Your task to perform on an android device: Add razer naga to the cart on amazon.com, then select checkout. Image 0: 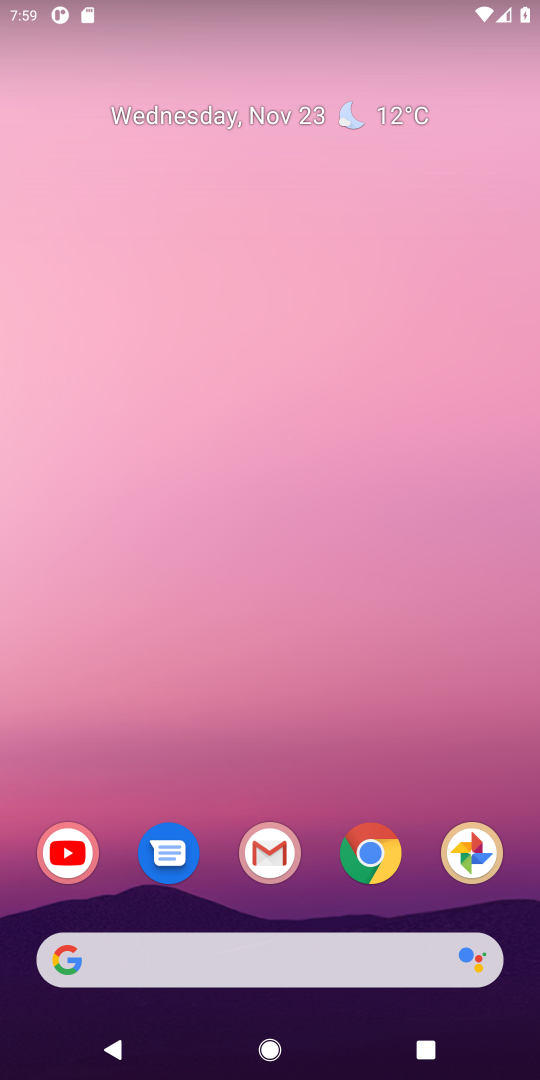
Step 0: click (363, 872)
Your task to perform on an android device: Add razer naga to the cart on amazon.com, then select checkout. Image 1: 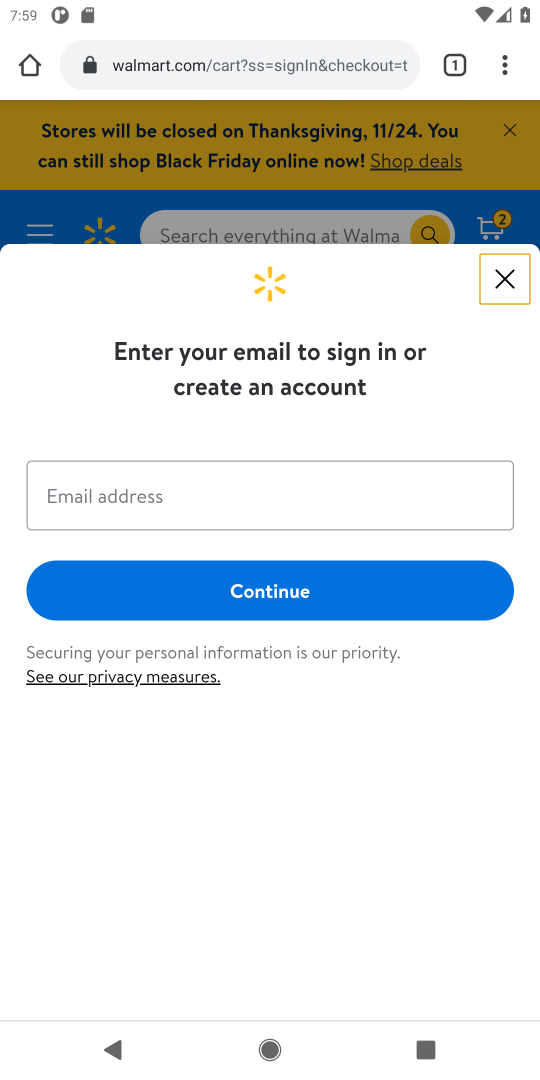
Step 1: click (205, 71)
Your task to perform on an android device: Add razer naga to the cart on amazon.com, then select checkout. Image 2: 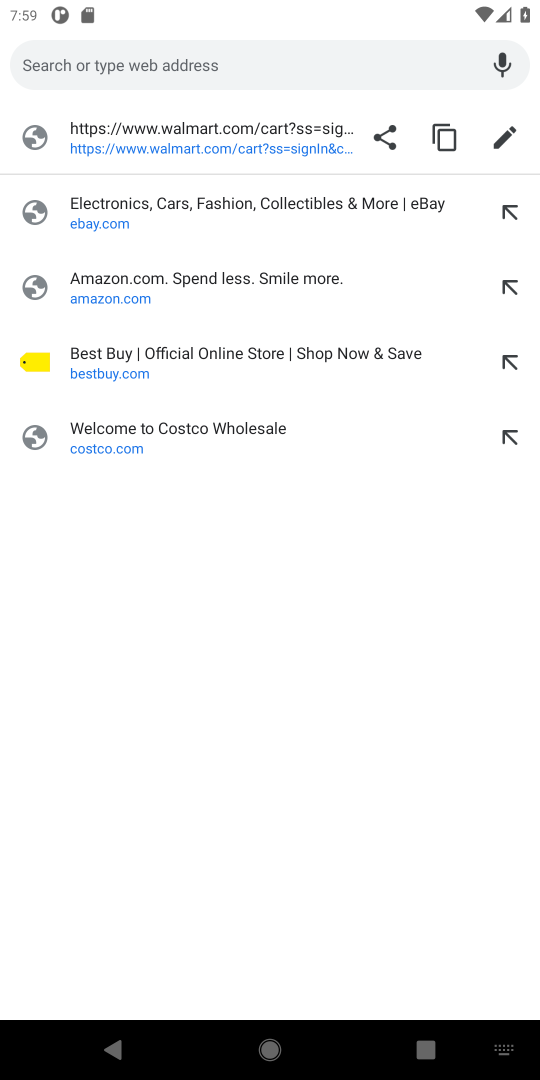
Step 2: click (75, 307)
Your task to perform on an android device: Add razer naga to the cart on amazon.com, then select checkout. Image 3: 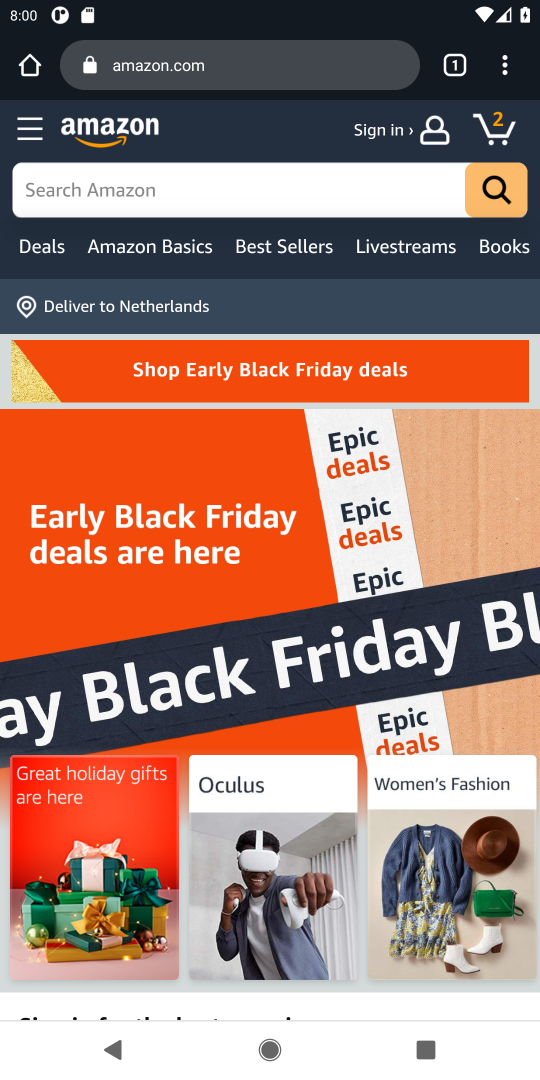
Step 3: click (124, 188)
Your task to perform on an android device: Add razer naga to the cart on amazon.com, then select checkout. Image 4: 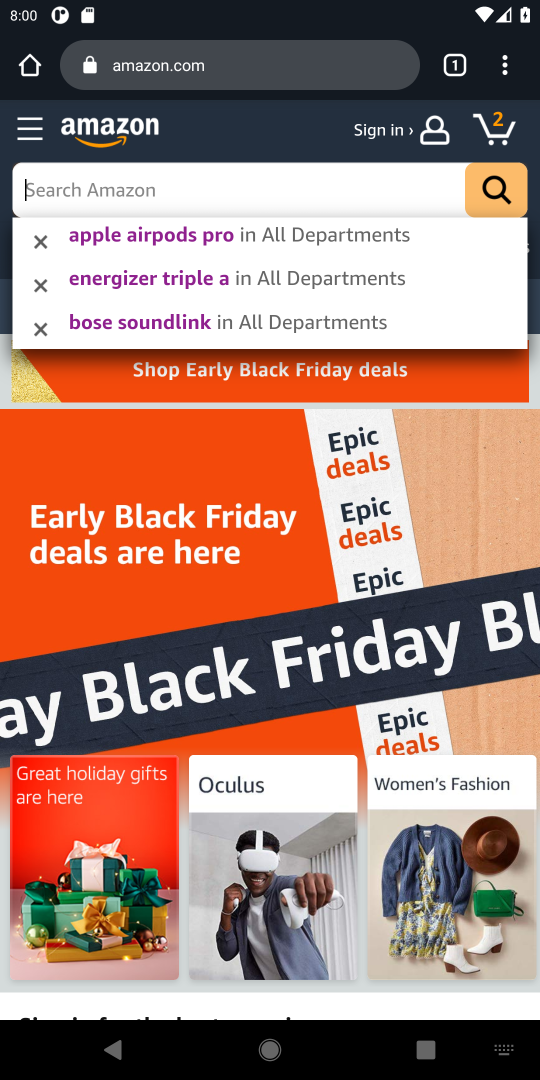
Step 4: type "razer naga "
Your task to perform on an android device: Add razer naga to the cart on amazon.com, then select checkout. Image 5: 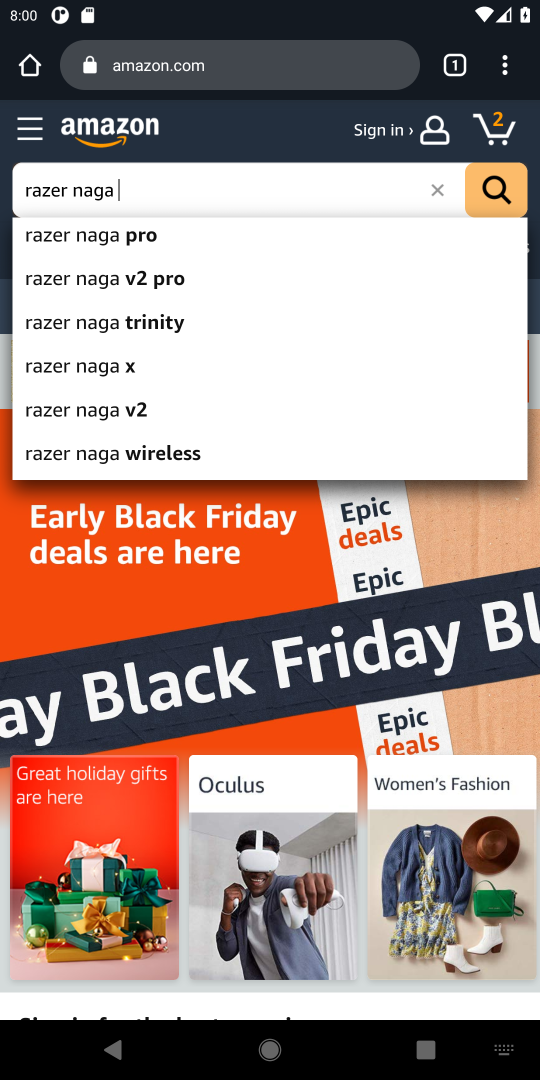
Step 5: click (488, 191)
Your task to perform on an android device: Add razer naga to the cart on amazon.com, then select checkout. Image 6: 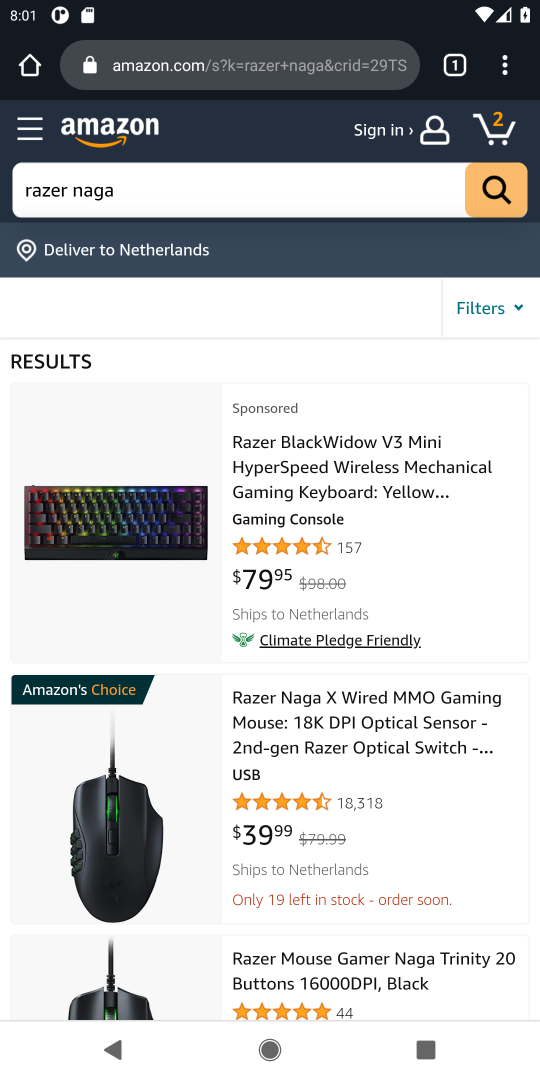
Step 6: click (103, 836)
Your task to perform on an android device: Add razer naga to the cart on amazon.com, then select checkout. Image 7: 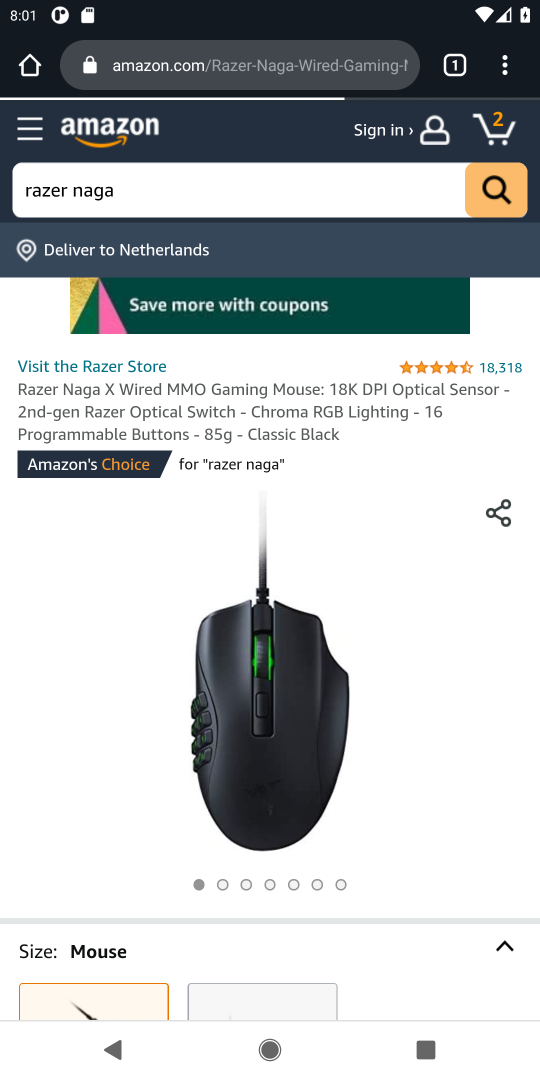
Step 7: drag from (215, 808) to (185, 338)
Your task to perform on an android device: Add razer naga to the cart on amazon.com, then select checkout. Image 8: 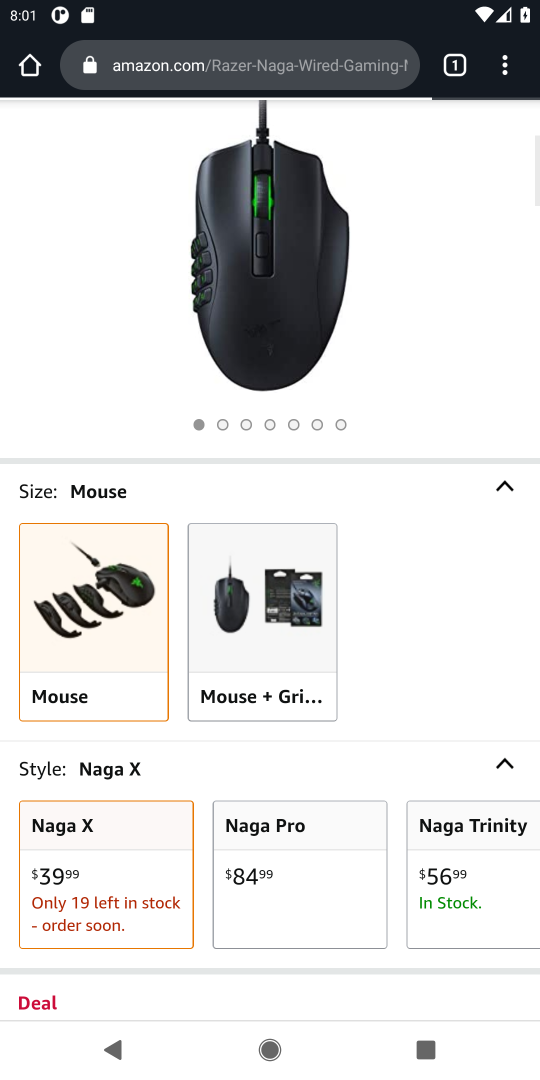
Step 8: drag from (242, 735) to (189, 360)
Your task to perform on an android device: Add razer naga to the cart on amazon.com, then select checkout. Image 9: 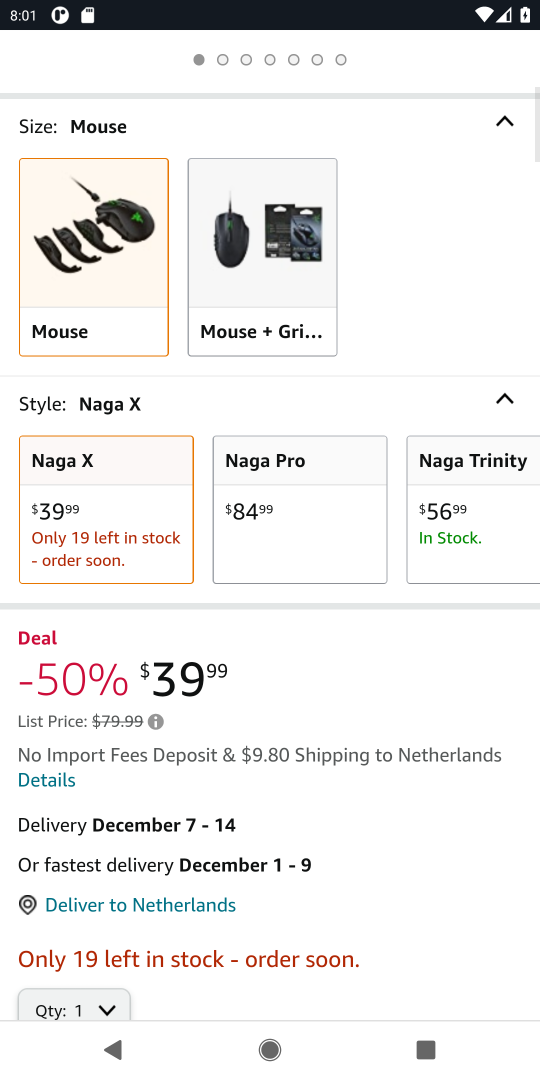
Step 9: drag from (241, 813) to (214, 434)
Your task to perform on an android device: Add razer naga to the cart on amazon.com, then select checkout. Image 10: 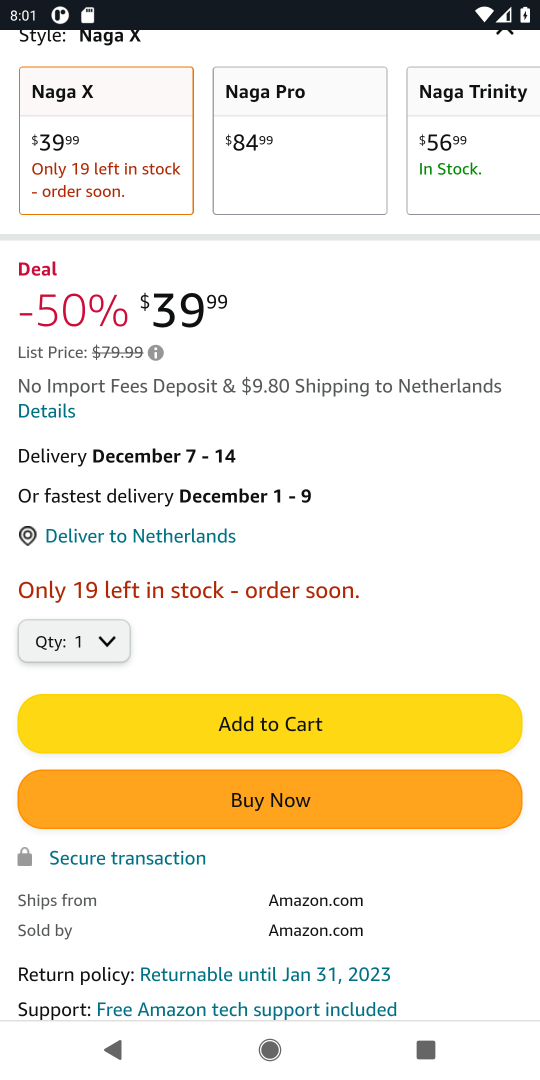
Step 10: click (248, 721)
Your task to perform on an android device: Add razer naga to the cart on amazon.com, then select checkout. Image 11: 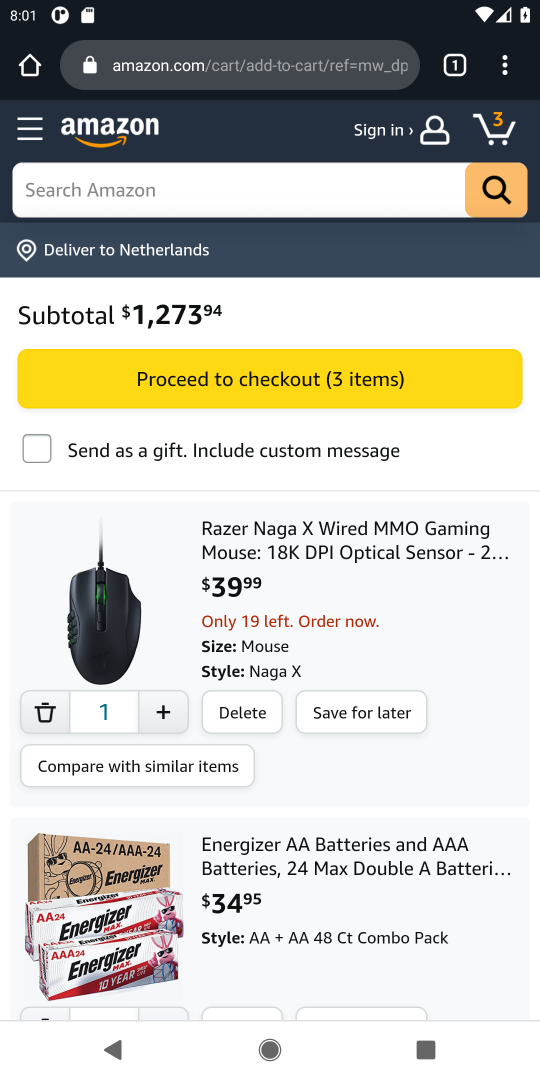
Step 11: click (244, 388)
Your task to perform on an android device: Add razer naga to the cart on amazon.com, then select checkout. Image 12: 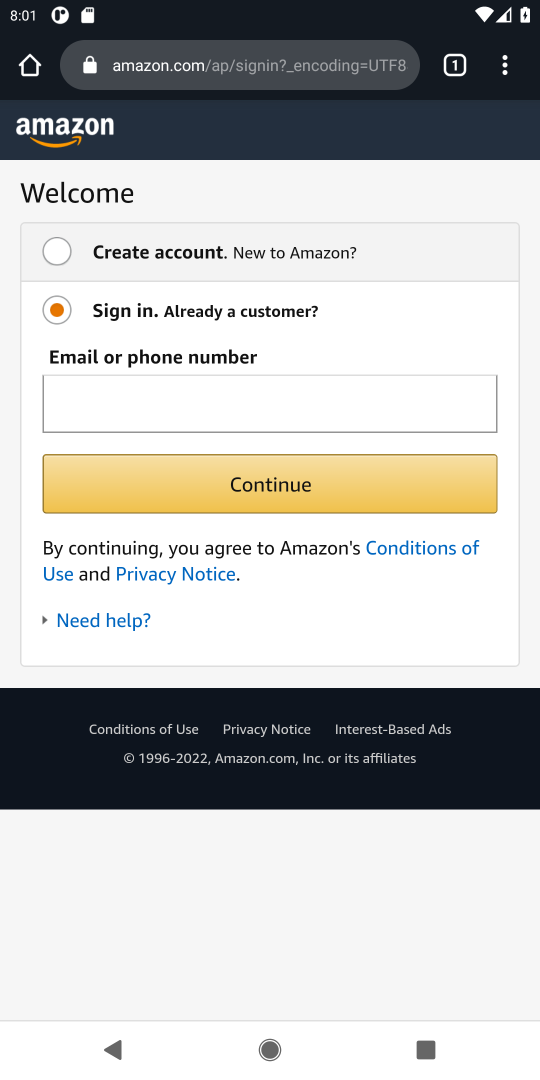
Step 12: task complete